Your task to perform on an android device: toggle sleep mode Image 0: 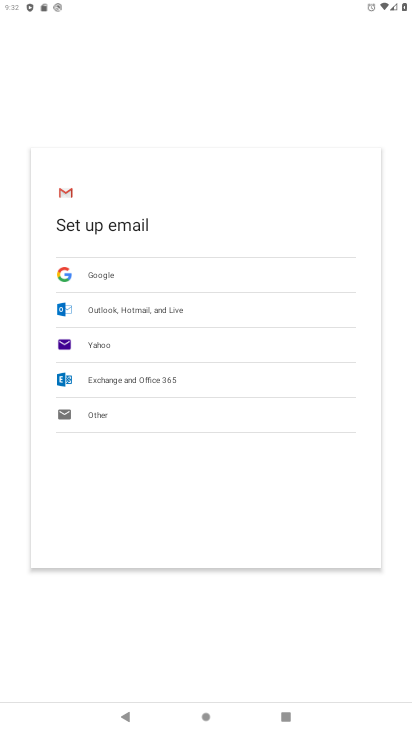
Step 0: press home button
Your task to perform on an android device: toggle sleep mode Image 1: 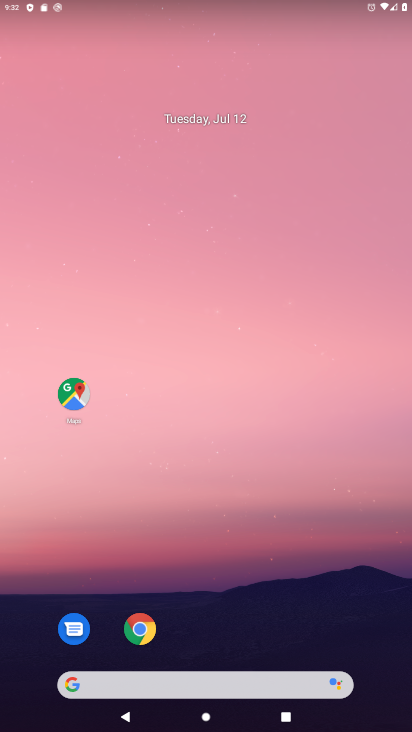
Step 1: drag from (362, 632) to (283, 119)
Your task to perform on an android device: toggle sleep mode Image 2: 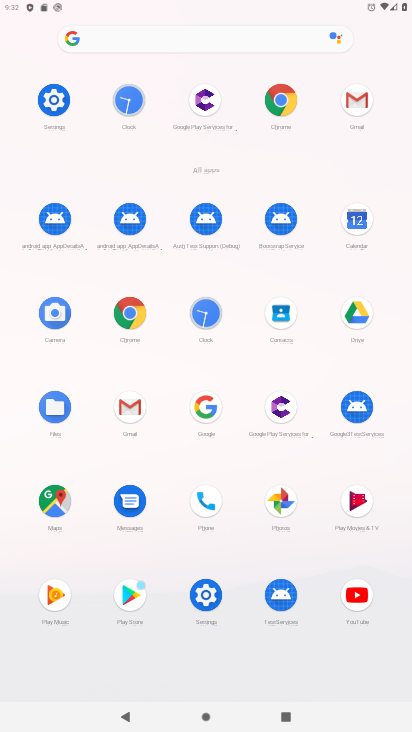
Step 2: click (204, 594)
Your task to perform on an android device: toggle sleep mode Image 3: 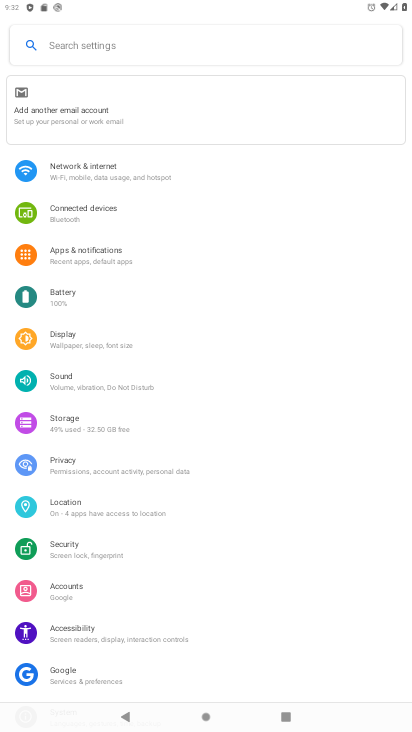
Step 3: click (73, 343)
Your task to perform on an android device: toggle sleep mode Image 4: 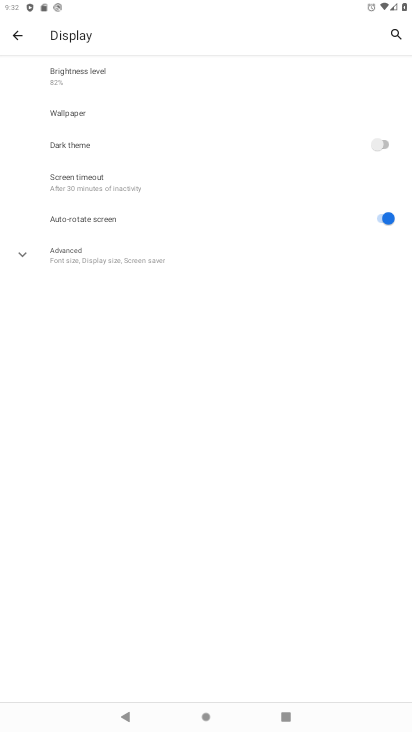
Step 4: click (21, 256)
Your task to perform on an android device: toggle sleep mode Image 5: 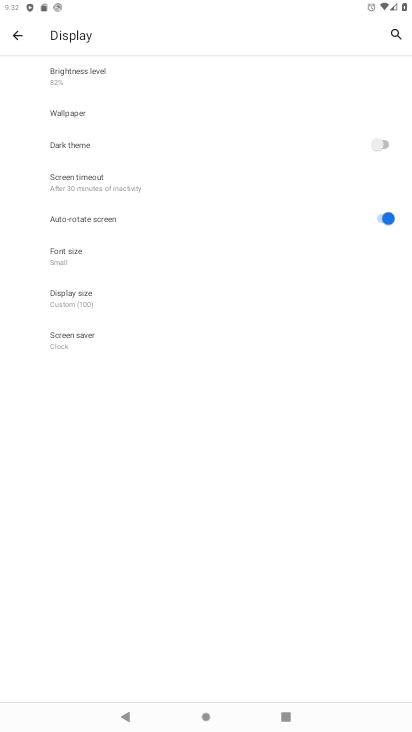
Step 5: task complete